Your task to perform on an android device: refresh tabs in the chrome app Image 0: 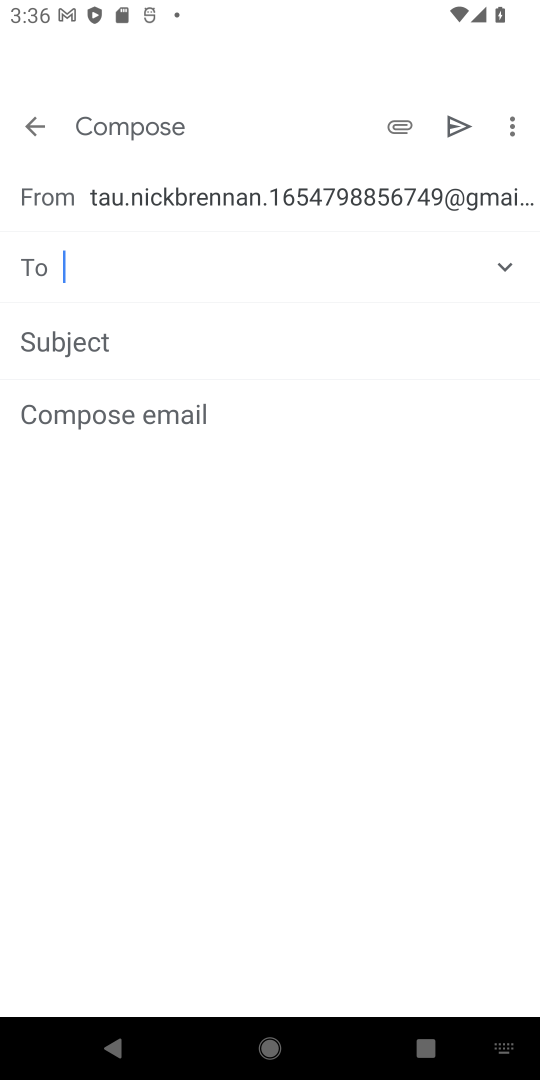
Step 0: press home button
Your task to perform on an android device: refresh tabs in the chrome app Image 1: 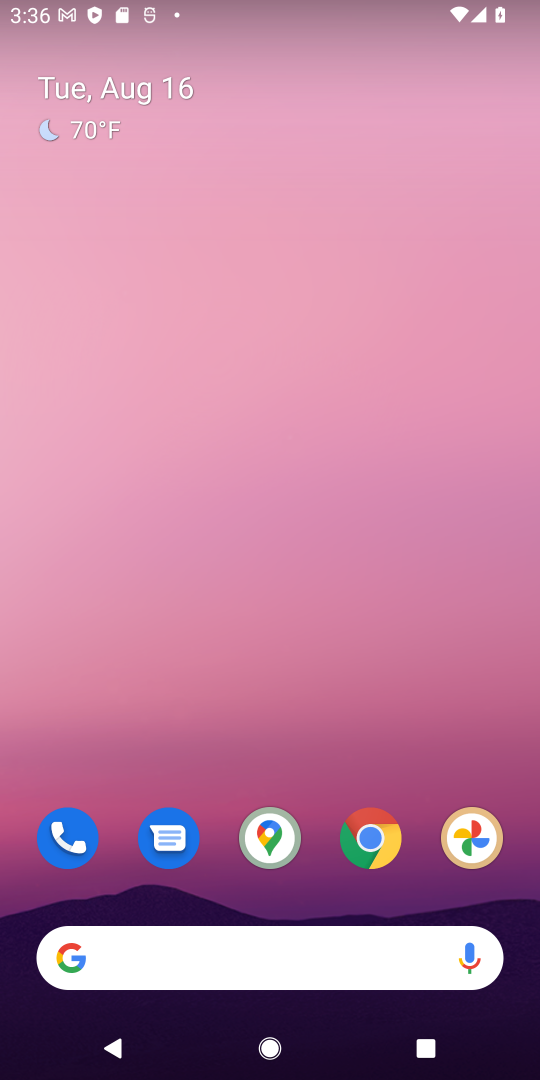
Step 1: click (392, 848)
Your task to perform on an android device: refresh tabs in the chrome app Image 2: 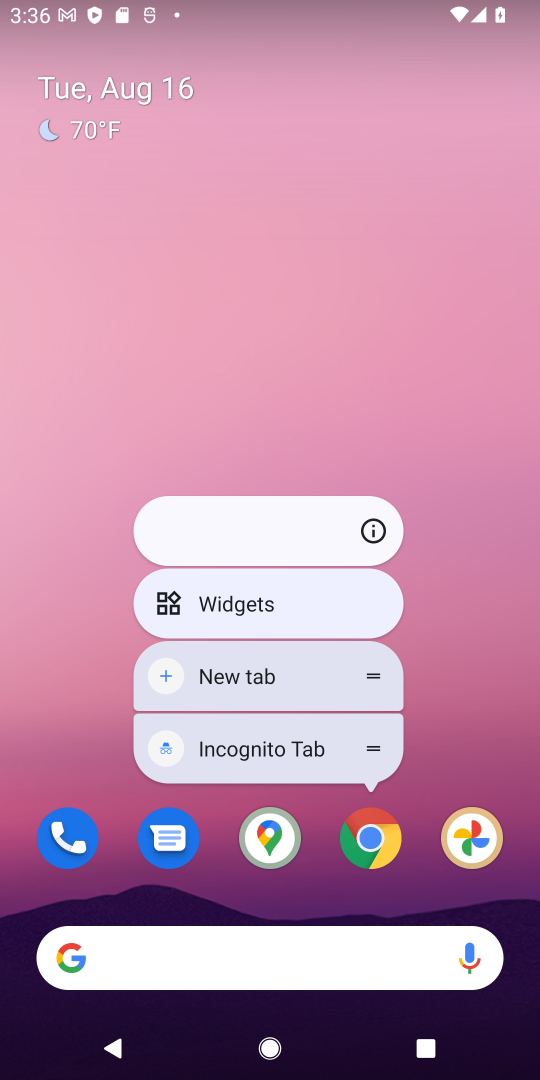
Step 2: click (392, 848)
Your task to perform on an android device: refresh tabs in the chrome app Image 3: 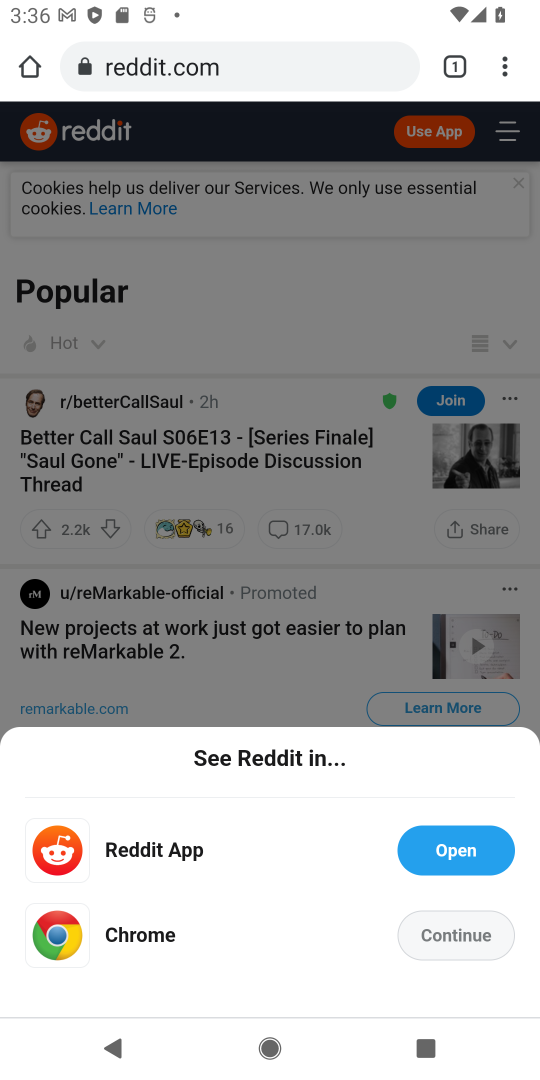
Step 3: click (495, 63)
Your task to perform on an android device: refresh tabs in the chrome app Image 4: 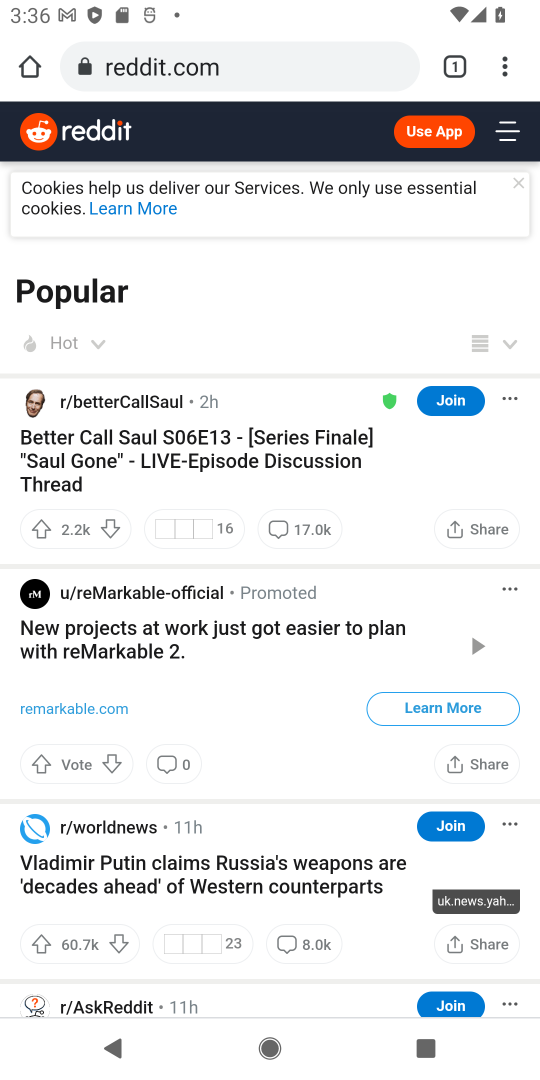
Step 4: task complete